Your task to perform on an android device: turn on the 24-hour format for clock Image 0: 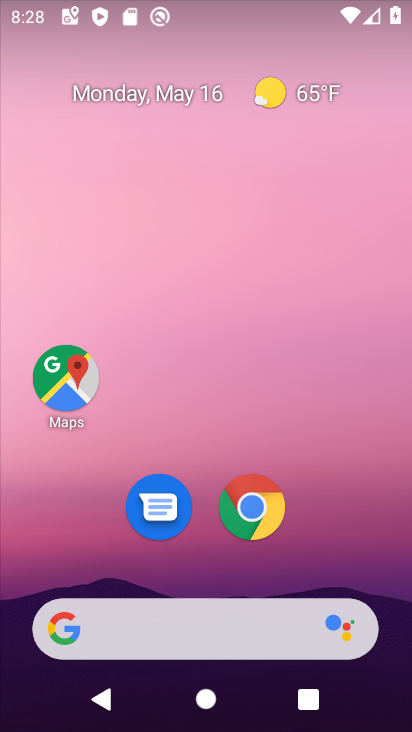
Step 0: drag from (206, 562) to (168, 137)
Your task to perform on an android device: turn on the 24-hour format for clock Image 1: 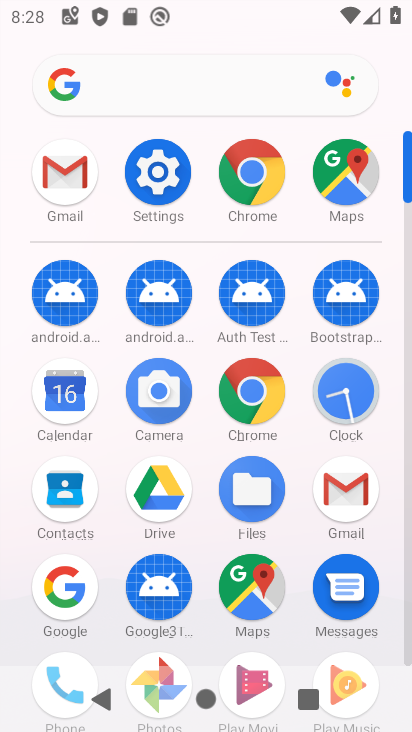
Step 1: click (339, 398)
Your task to perform on an android device: turn on the 24-hour format for clock Image 2: 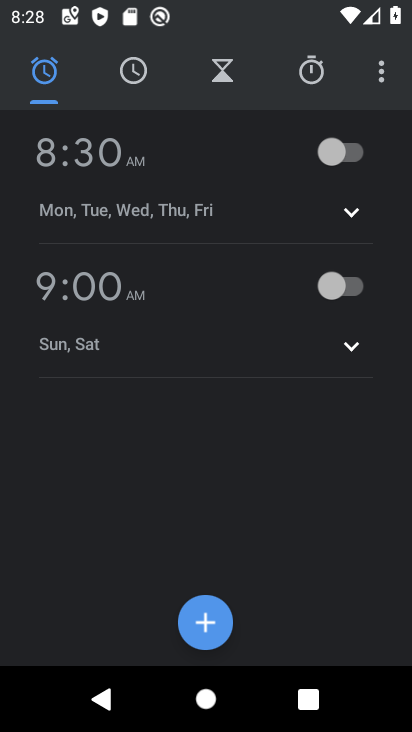
Step 2: drag from (372, 85) to (324, 140)
Your task to perform on an android device: turn on the 24-hour format for clock Image 3: 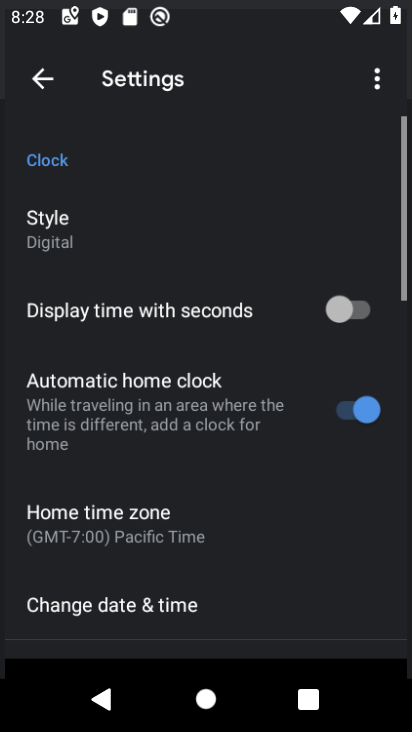
Step 3: click (324, 140)
Your task to perform on an android device: turn on the 24-hour format for clock Image 4: 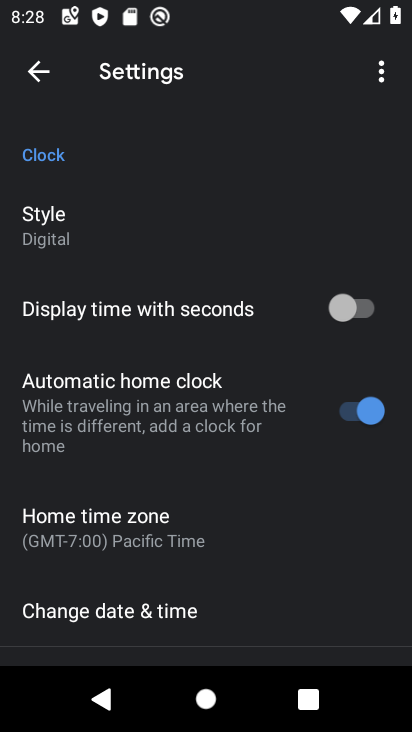
Step 4: click (133, 601)
Your task to perform on an android device: turn on the 24-hour format for clock Image 5: 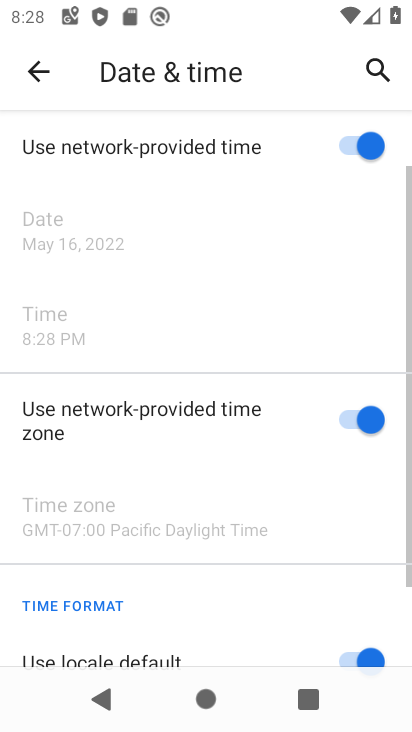
Step 5: drag from (138, 586) to (113, 153)
Your task to perform on an android device: turn on the 24-hour format for clock Image 6: 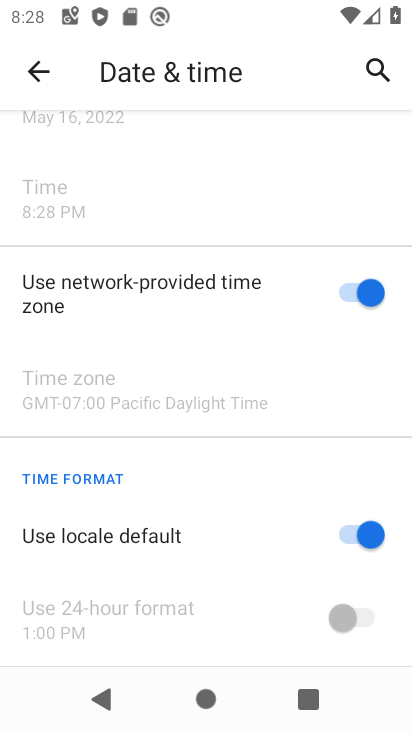
Step 6: click (346, 529)
Your task to perform on an android device: turn on the 24-hour format for clock Image 7: 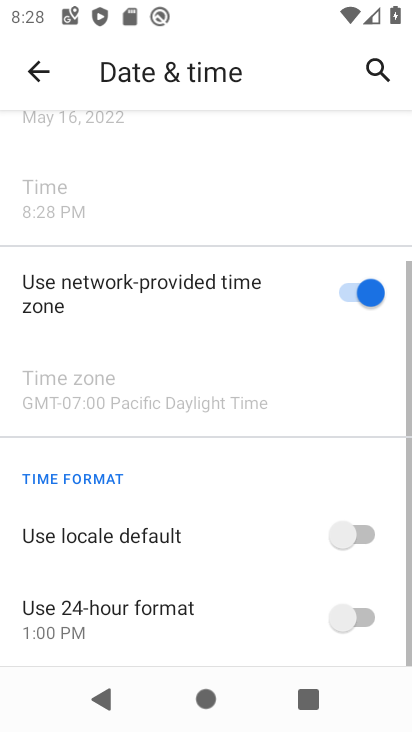
Step 7: click (352, 627)
Your task to perform on an android device: turn on the 24-hour format for clock Image 8: 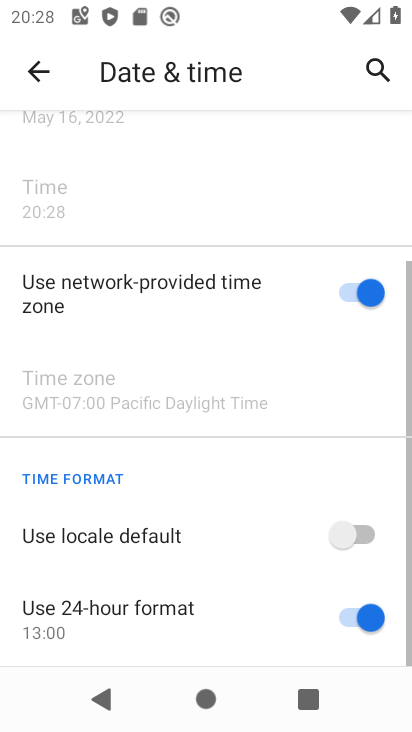
Step 8: task complete